Your task to perform on an android device: turn off priority inbox in the gmail app Image 0: 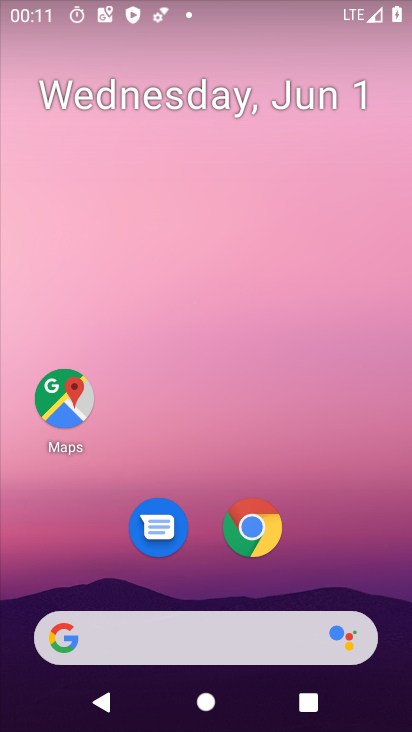
Step 0: click (200, 142)
Your task to perform on an android device: turn off priority inbox in the gmail app Image 1: 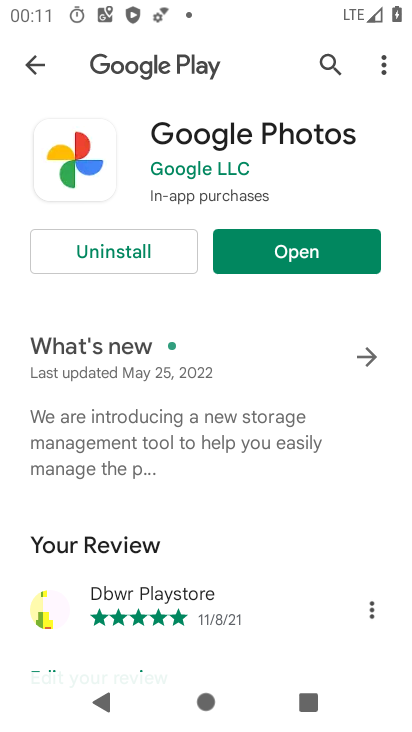
Step 1: drag from (235, 593) to (229, 216)
Your task to perform on an android device: turn off priority inbox in the gmail app Image 2: 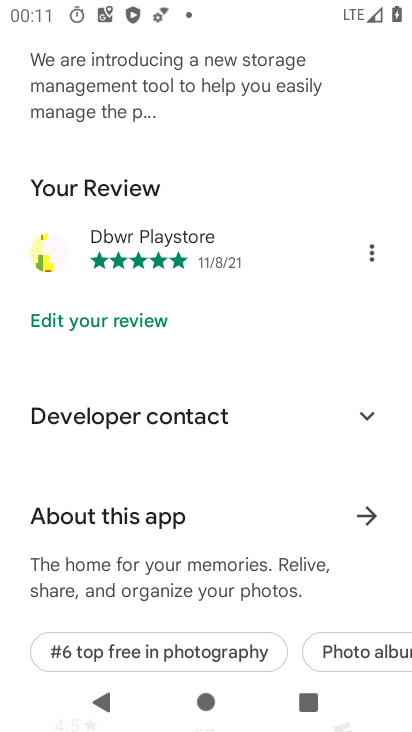
Step 2: drag from (223, 222) to (286, 590)
Your task to perform on an android device: turn off priority inbox in the gmail app Image 3: 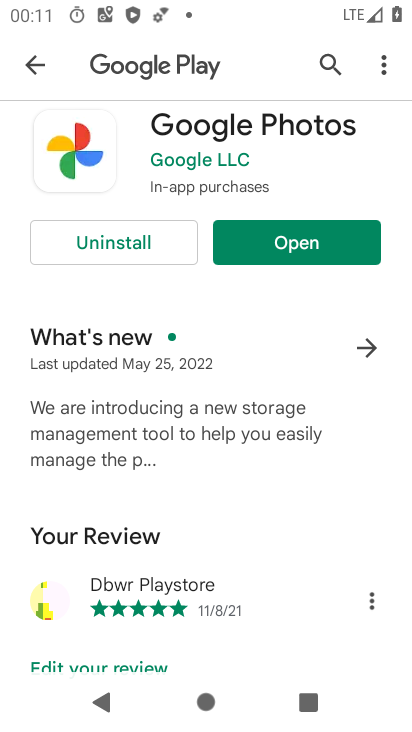
Step 3: press home button
Your task to perform on an android device: turn off priority inbox in the gmail app Image 4: 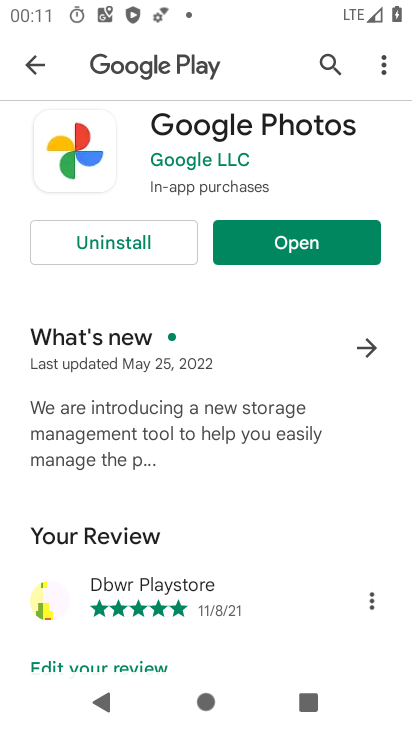
Step 4: drag from (230, 328) to (290, 2)
Your task to perform on an android device: turn off priority inbox in the gmail app Image 5: 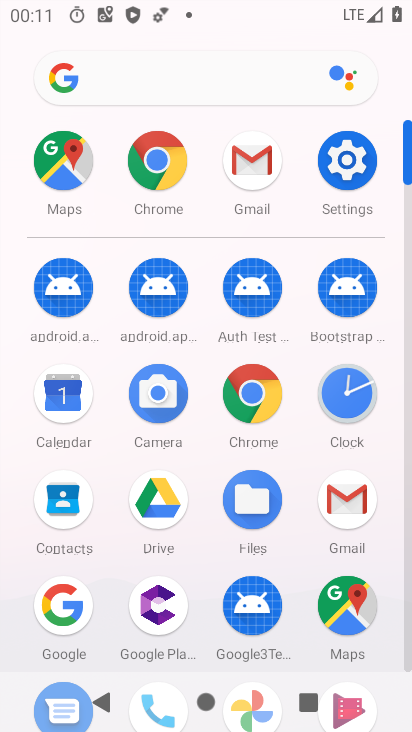
Step 5: click (350, 510)
Your task to perform on an android device: turn off priority inbox in the gmail app Image 6: 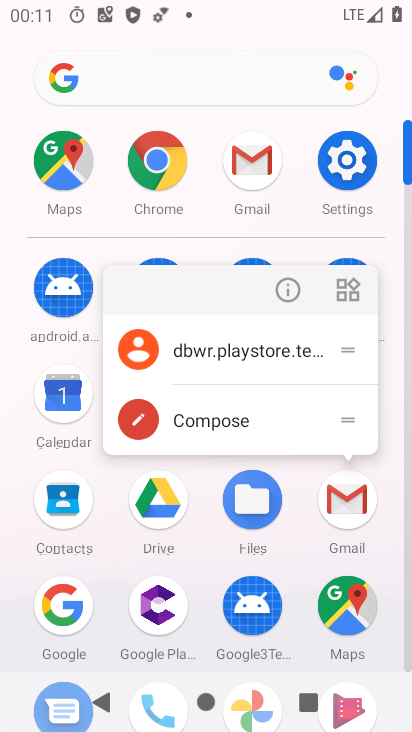
Step 6: click (234, 346)
Your task to perform on an android device: turn off priority inbox in the gmail app Image 7: 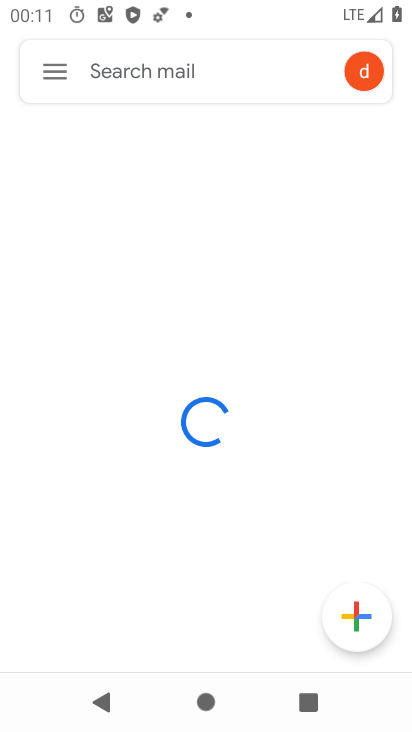
Step 7: click (44, 77)
Your task to perform on an android device: turn off priority inbox in the gmail app Image 8: 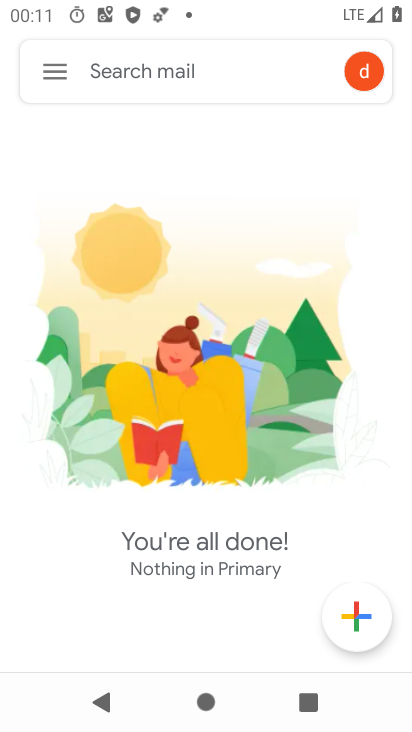
Step 8: click (43, 75)
Your task to perform on an android device: turn off priority inbox in the gmail app Image 9: 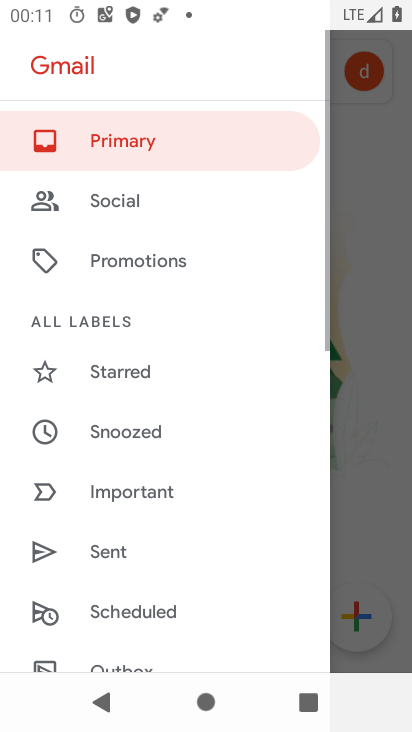
Step 9: drag from (165, 487) to (227, 96)
Your task to perform on an android device: turn off priority inbox in the gmail app Image 10: 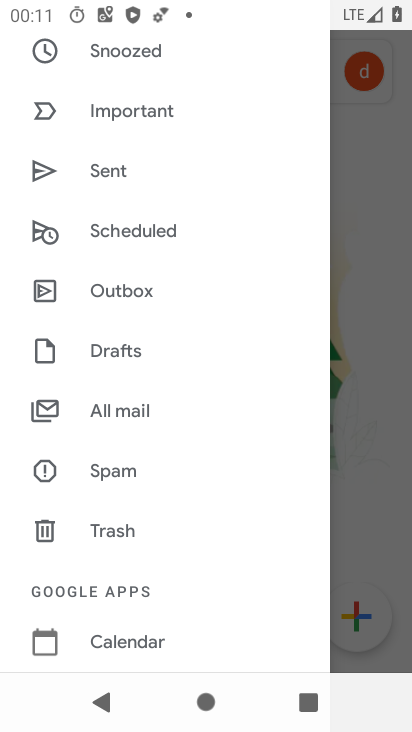
Step 10: drag from (123, 618) to (198, 84)
Your task to perform on an android device: turn off priority inbox in the gmail app Image 11: 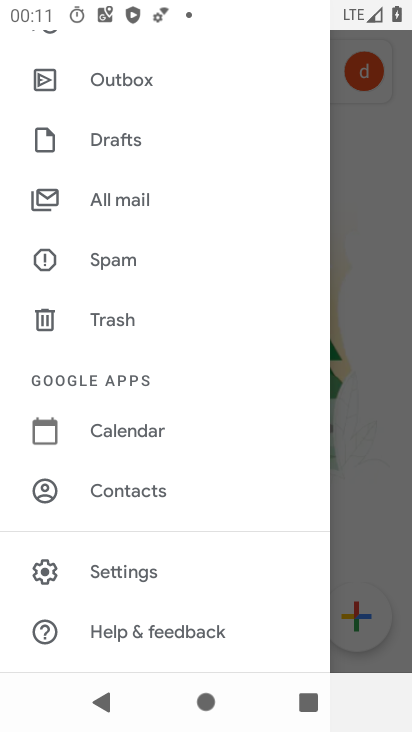
Step 11: click (149, 568)
Your task to perform on an android device: turn off priority inbox in the gmail app Image 12: 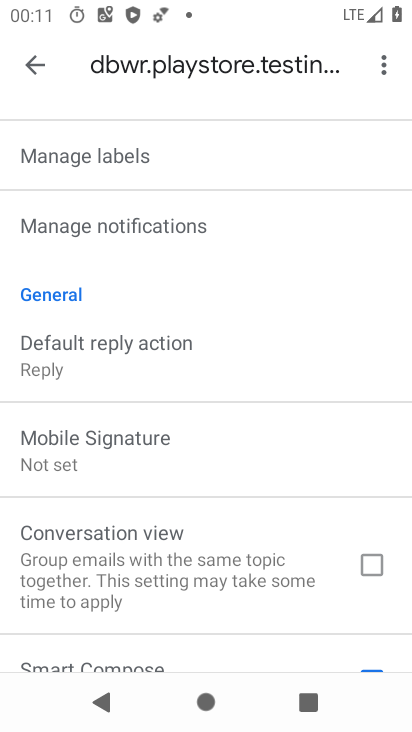
Step 12: drag from (161, 314) to (157, 716)
Your task to perform on an android device: turn off priority inbox in the gmail app Image 13: 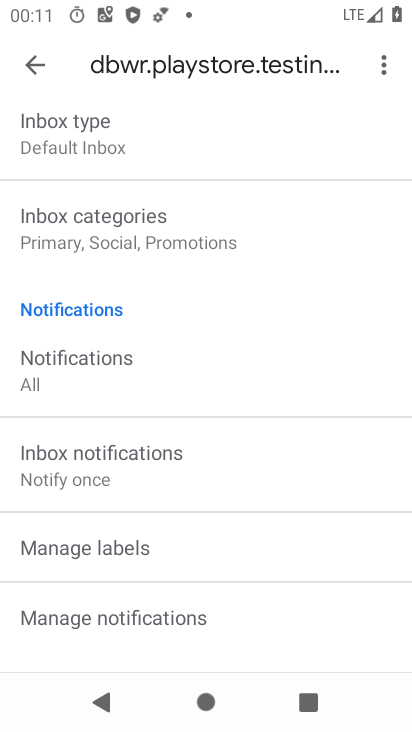
Step 13: click (120, 147)
Your task to perform on an android device: turn off priority inbox in the gmail app Image 14: 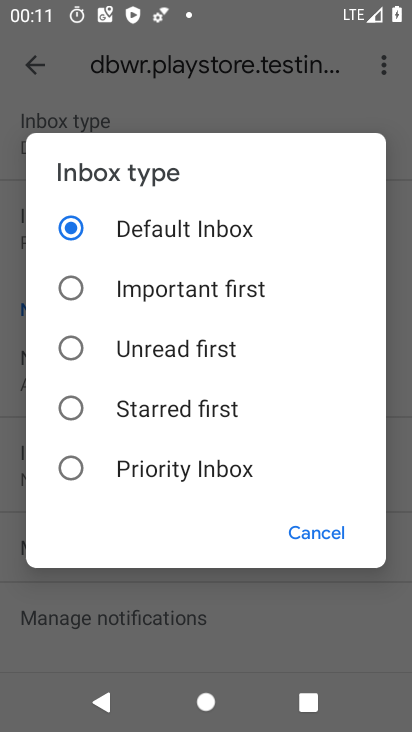
Step 14: click (78, 343)
Your task to perform on an android device: turn off priority inbox in the gmail app Image 15: 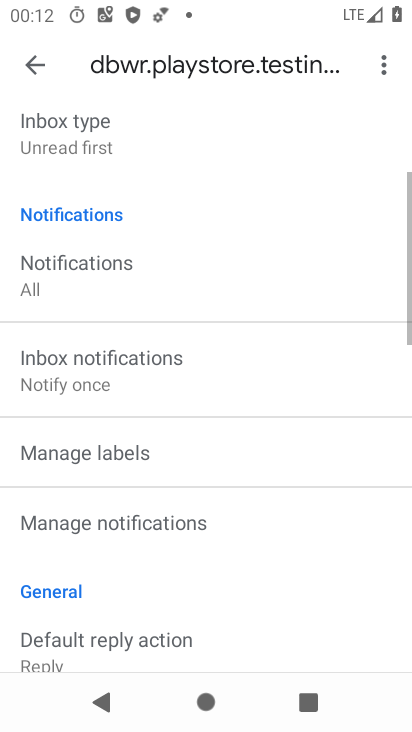
Step 15: task complete